Your task to perform on an android device: open app "Paramount+ | Peak Streaming" (install if not already installed) and go to login screen Image 0: 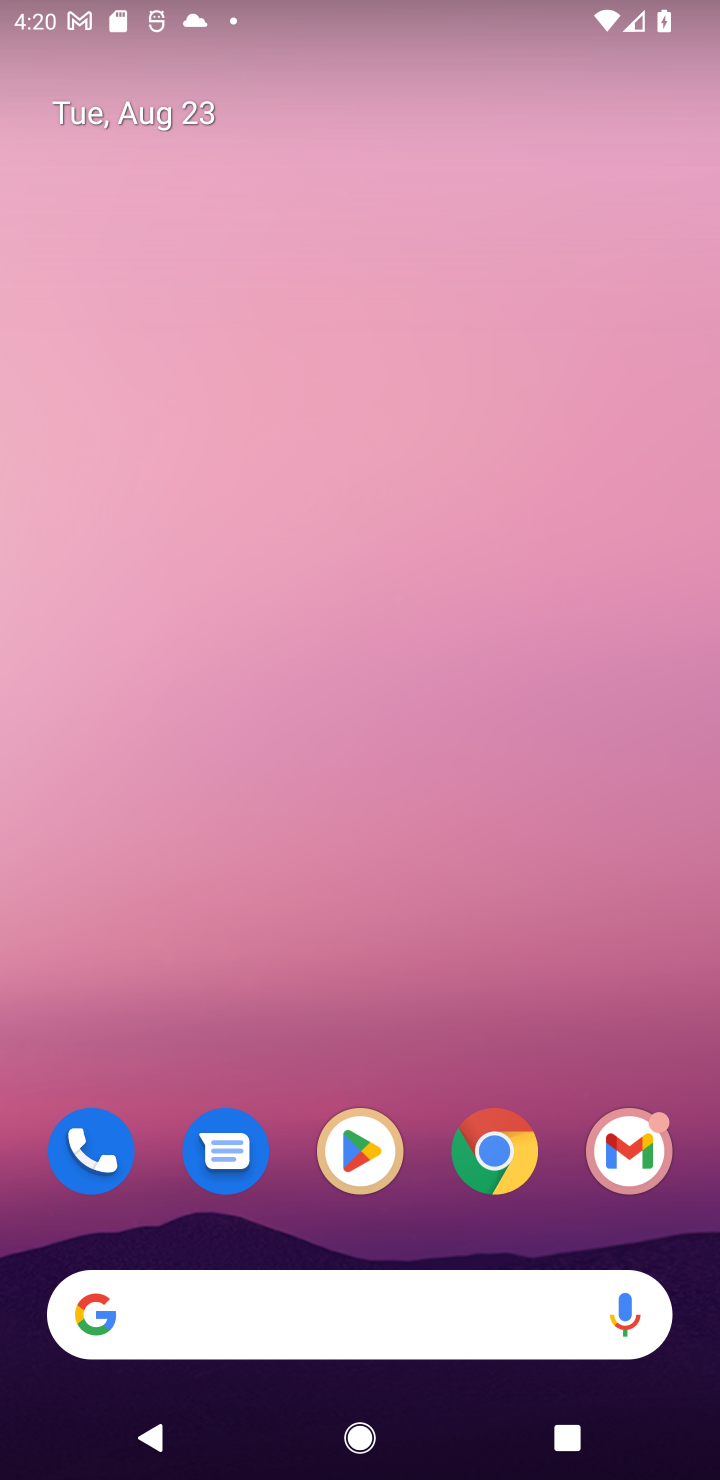
Step 0: click (375, 1151)
Your task to perform on an android device: open app "Paramount+ | Peak Streaming" (install if not already installed) and go to login screen Image 1: 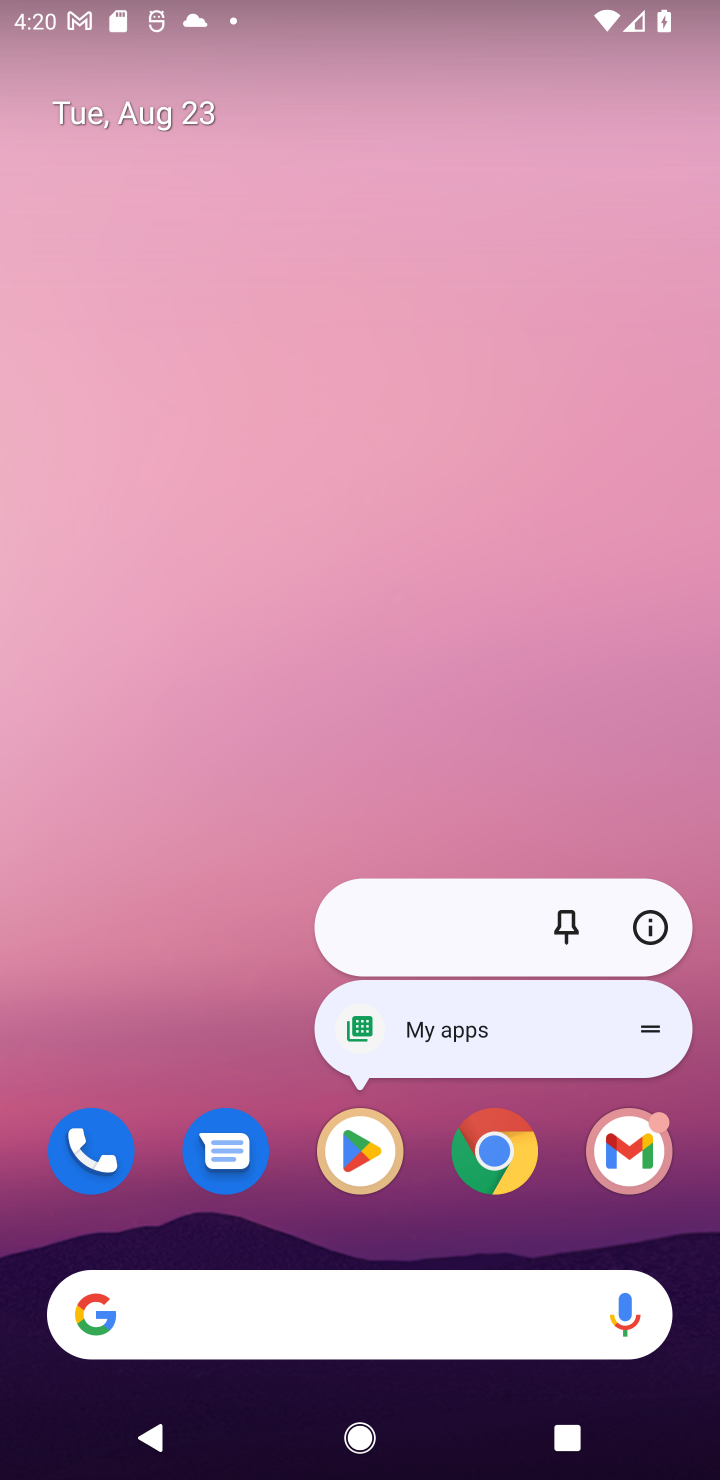
Step 1: click (358, 1153)
Your task to perform on an android device: open app "Paramount+ | Peak Streaming" (install if not already installed) and go to login screen Image 2: 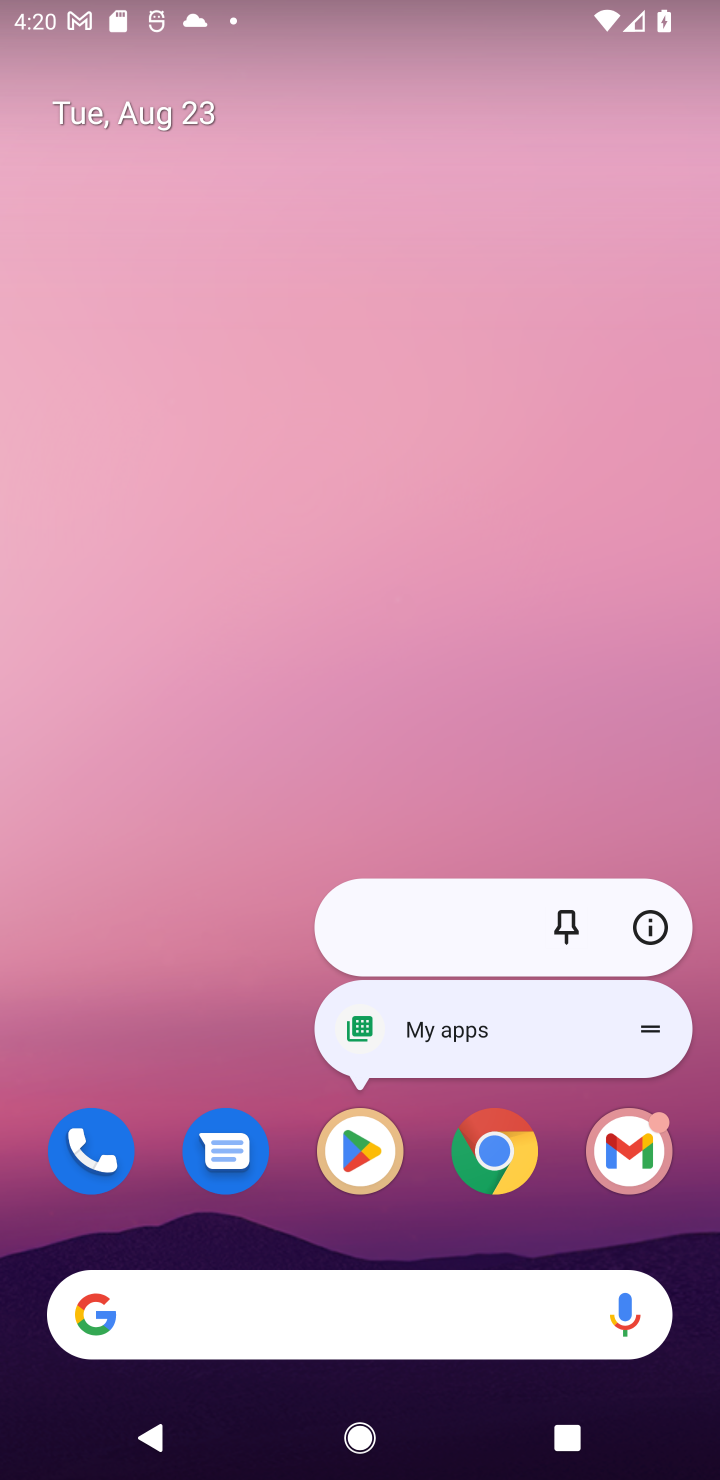
Step 2: click (358, 1151)
Your task to perform on an android device: open app "Paramount+ | Peak Streaming" (install if not already installed) and go to login screen Image 3: 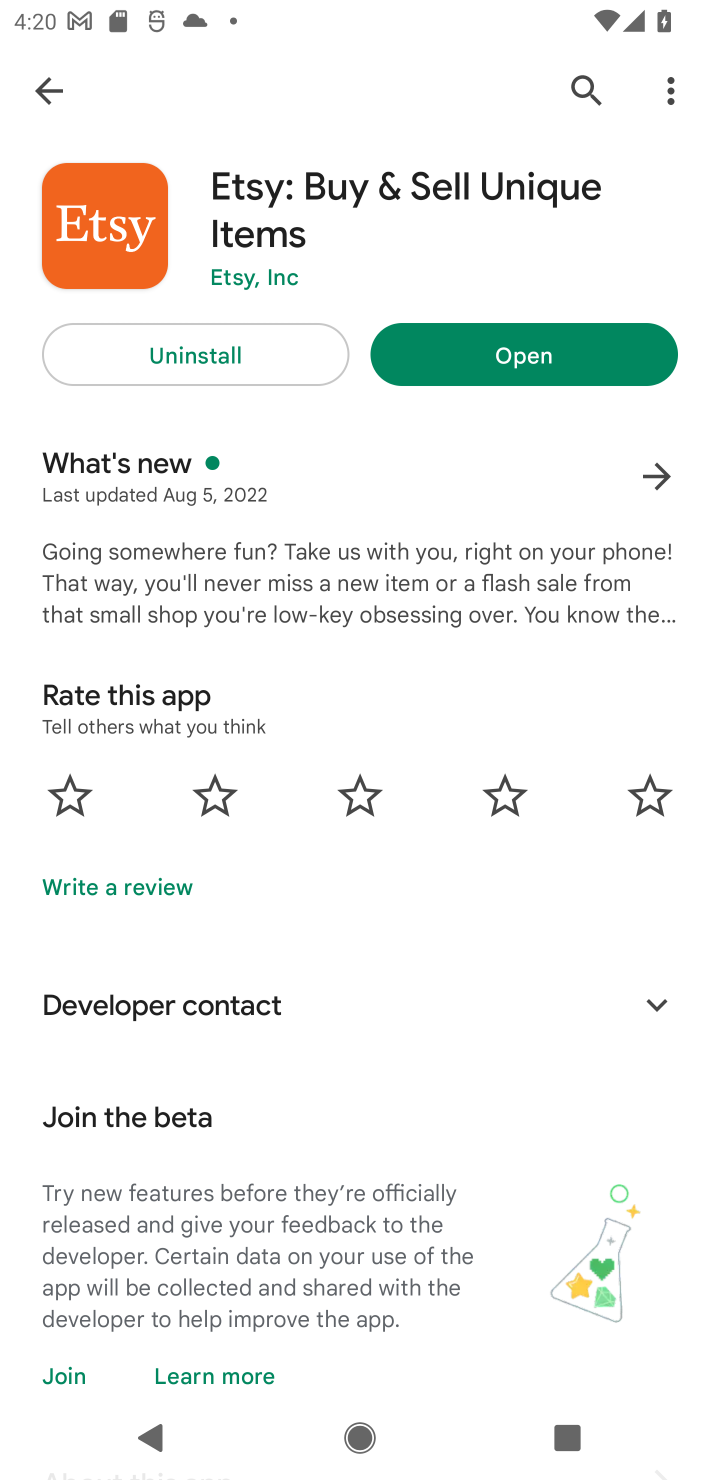
Step 3: click (578, 91)
Your task to perform on an android device: open app "Paramount+ | Peak Streaming" (install if not already installed) and go to login screen Image 4: 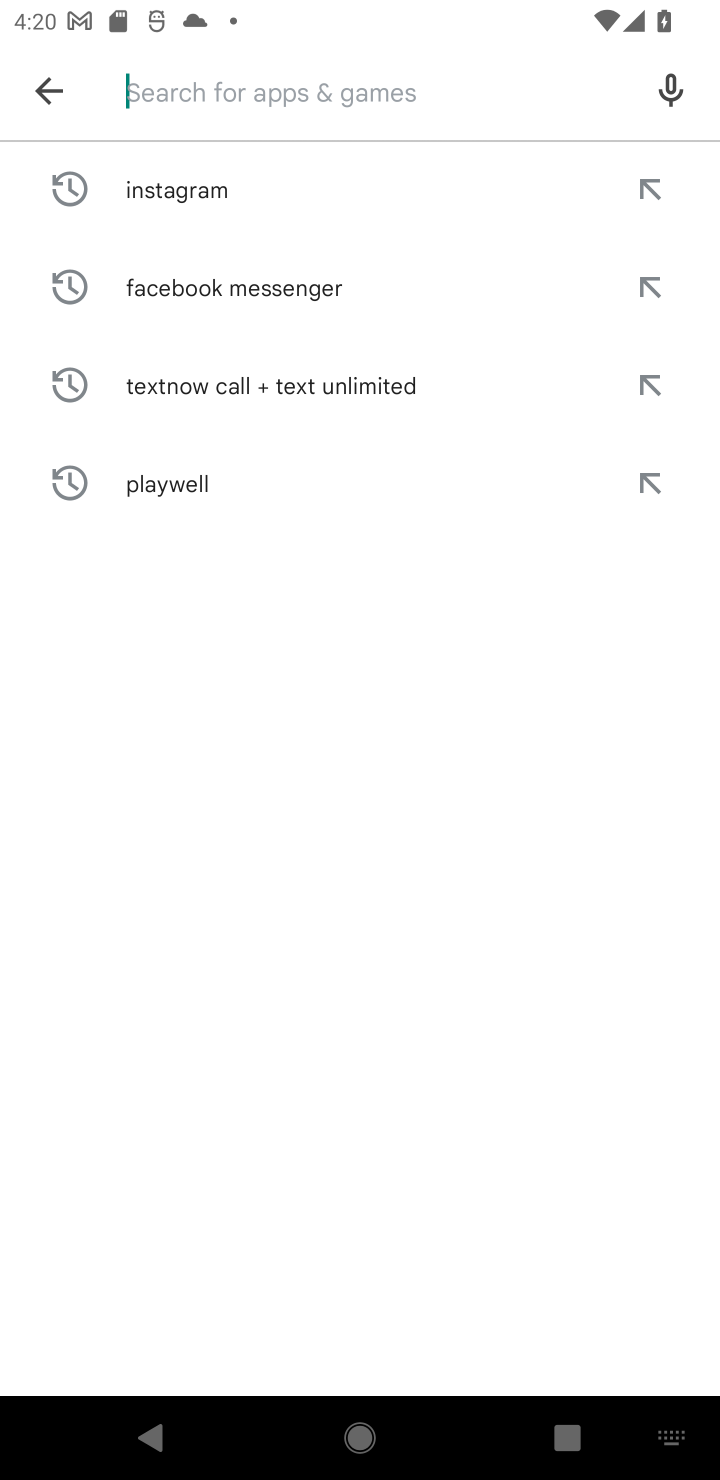
Step 4: type "Paramount+ | Peak Streaming"
Your task to perform on an android device: open app "Paramount+ | Peak Streaming" (install if not already installed) and go to login screen Image 5: 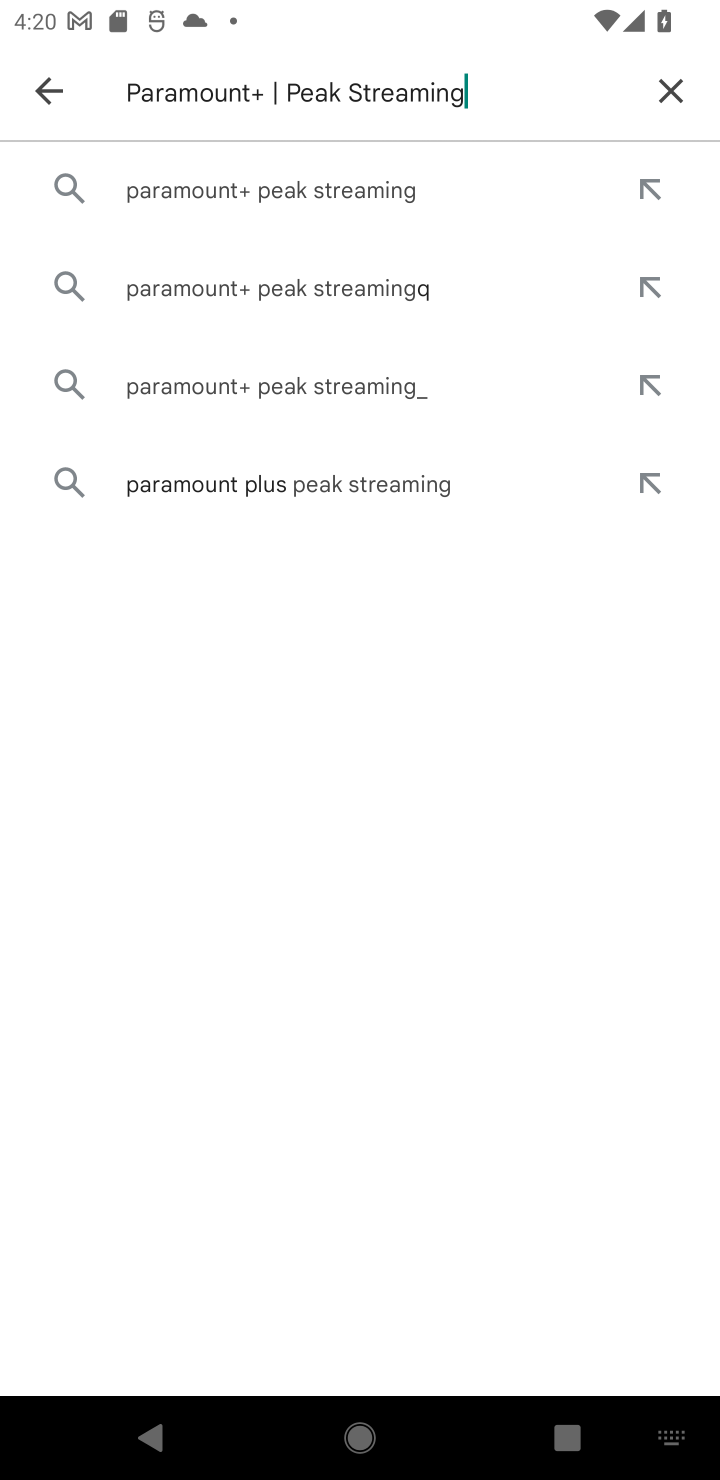
Step 5: click (216, 181)
Your task to perform on an android device: open app "Paramount+ | Peak Streaming" (install if not already installed) and go to login screen Image 6: 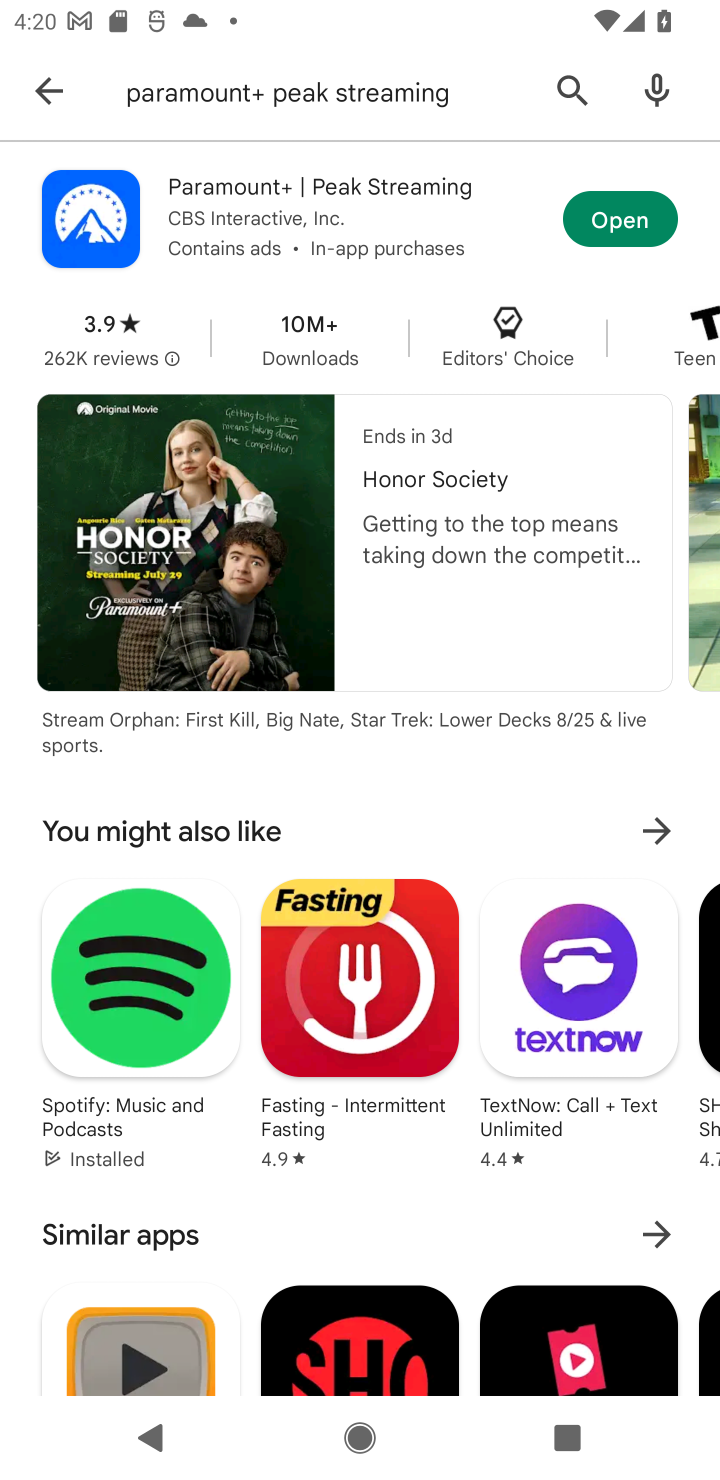
Step 6: click (622, 230)
Your task to perform on an android device: open app "Paramount+ | Peak Streaming" (install if not already installed) and go to login screen Image 7: 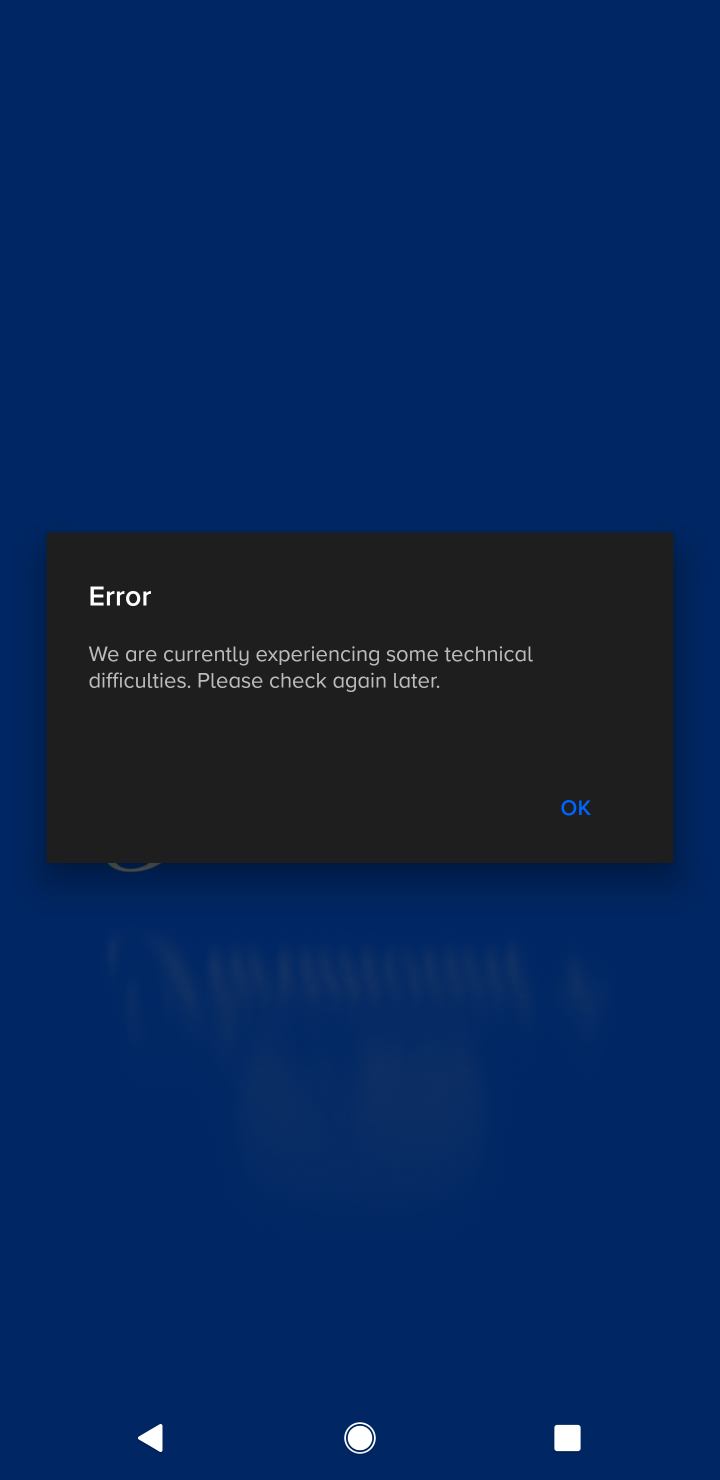
Step 7: task complete